Your task to perform on an android device: open the mobile data screen to see how much data has been used Image 0: 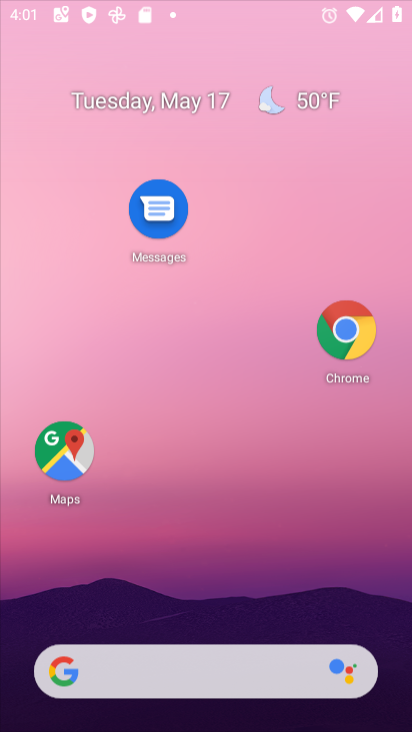
Step 0: drag from (178, 569) to (282, 85)
Your task to perform on an android device: open the mobile data screen to see how much data has been used Image 1: 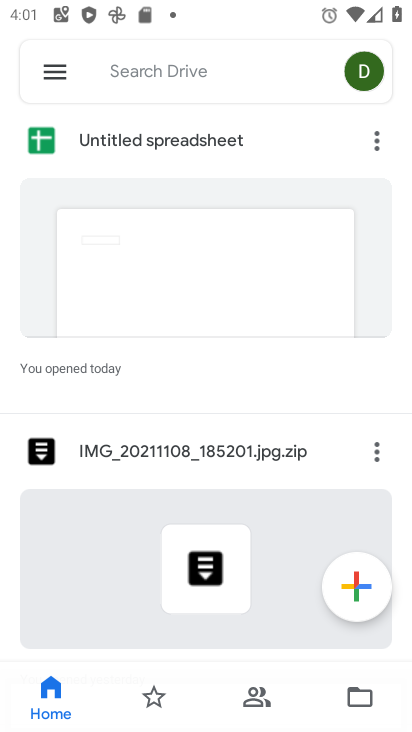
Step 1: press home button
Your task to perform on an android device: open the mobile data screen to see how much data has been used Image 2: 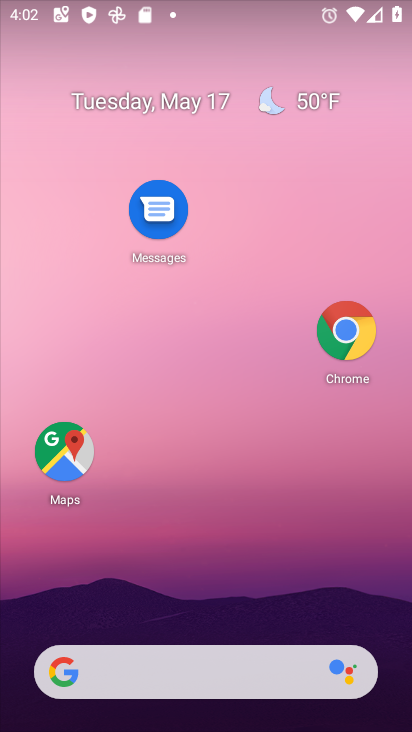
Step 2: drag from (200, 603) to (219, 132)
Your task to perform on an android device: open the mobile data screen to see how much data has been used Image 3: 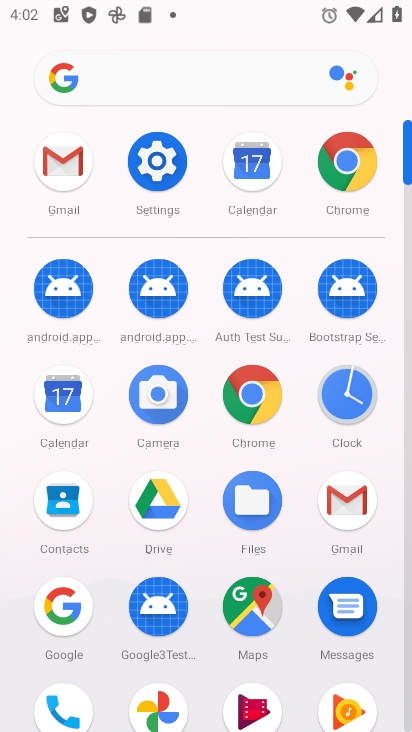
Step 3: click (161, 210)
Your task to perform on an android device: open the mobile data screen to see how much data has been used Image 4: 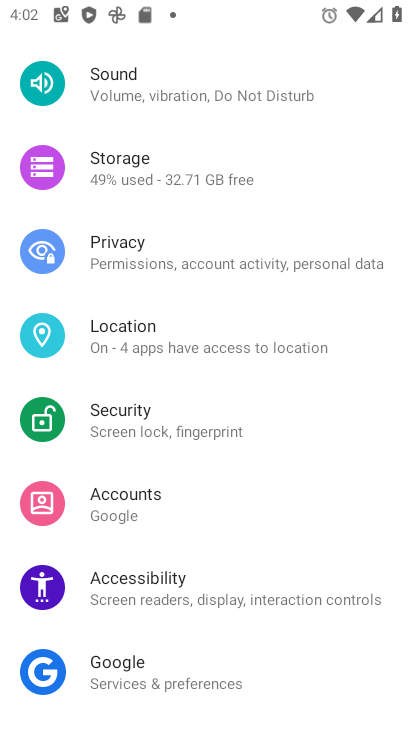
Step 4: drag from (185, 87) to (179, 378)
Your task to perform on an android device: open the mobile data screen to see how much data has been used Image 5: 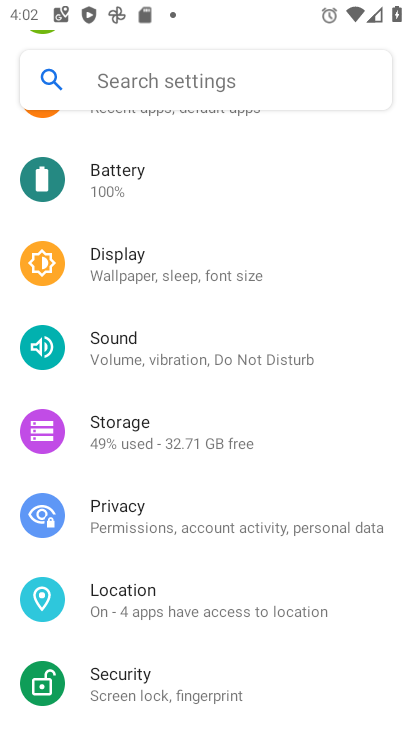
Step 5: drag from (175, 178) to (184, 461)
Your task to perform on an android device: open the mobile data screen to see how much data has been used Image 6: 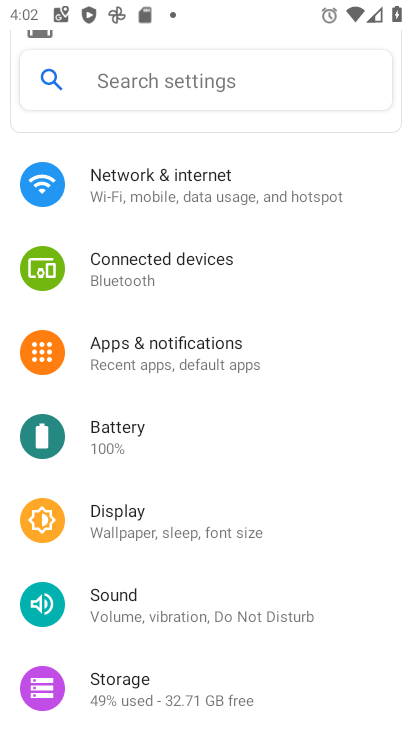
Step 6: click (195, 188)
Your task to perform on an android device: open the mobile data screen to see how much data has been used Image 7: 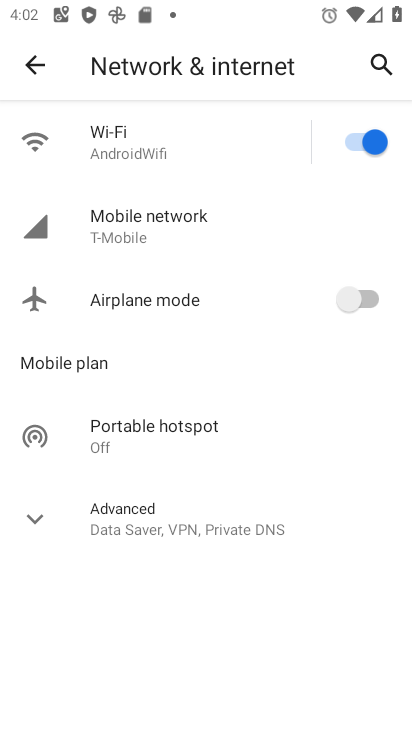
Step 7: click (174, 212)
Your task to perform on an android device: open the mobile data screen to see how much data has been used Image 8: 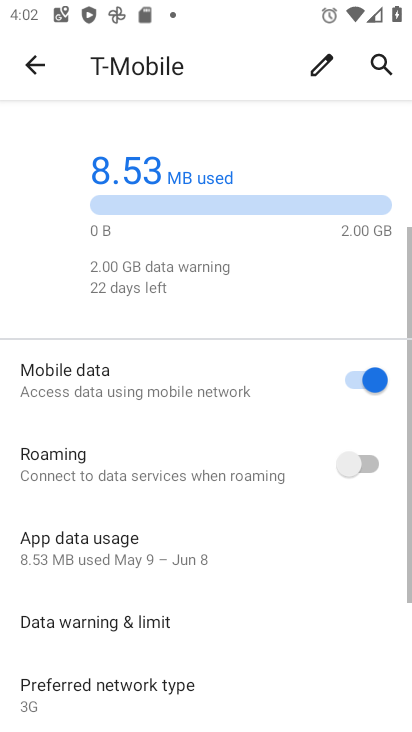
Step 8: task complete